Your task to perform on an android device: What's the weather today? Image 0: 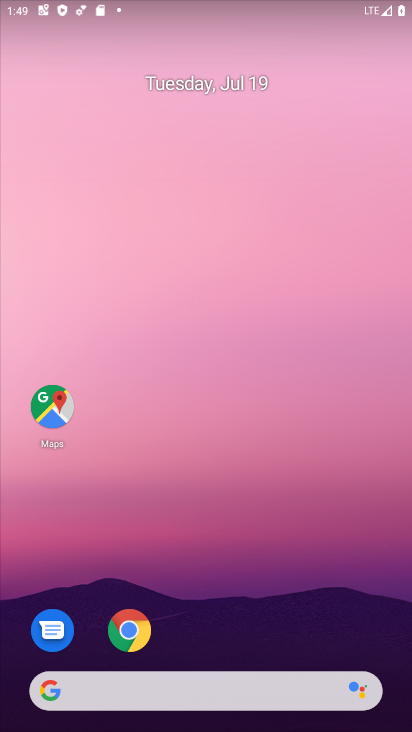
Step 0: drag from (29, 274) to (393, 294)
Your task to perform on an android device: What's the weather today? Image 1: 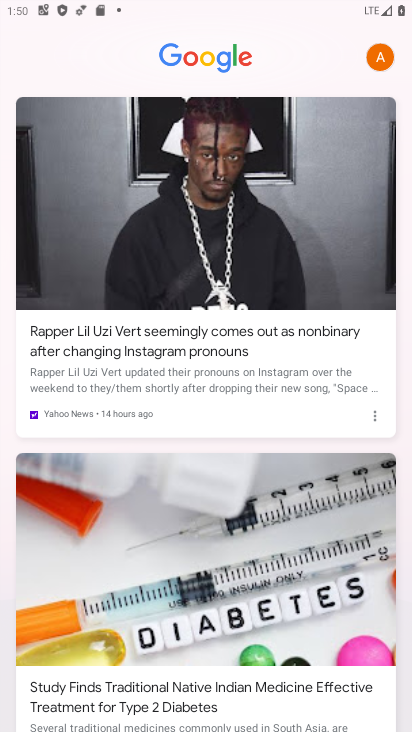
Step 1: press back button
Your task to perform on an android device: What's the weather today? Image 2: 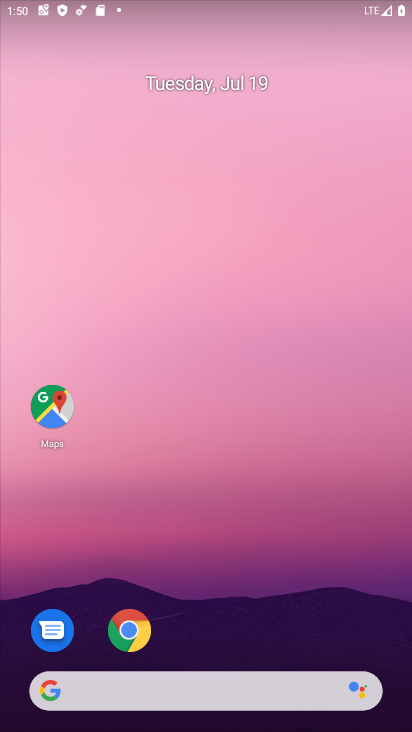
Step 2: click (211, 686)
Your task to perform on an android device: What's the weather today? Image 3: 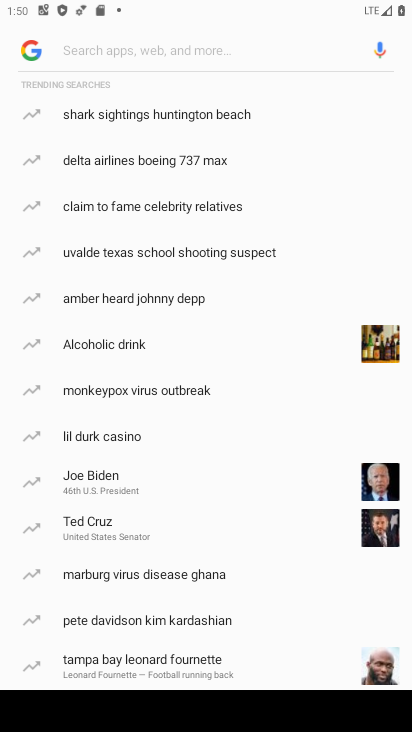
Step 3: type "weather"
Your task to perform on an android device: What's the weather today? Image 4: 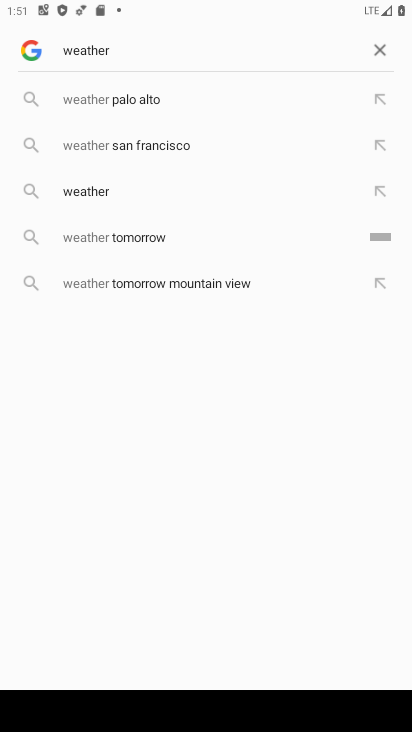
Step 4: click (105, 186)
Your task to perform on an android device: What's the weather today? Image 5: 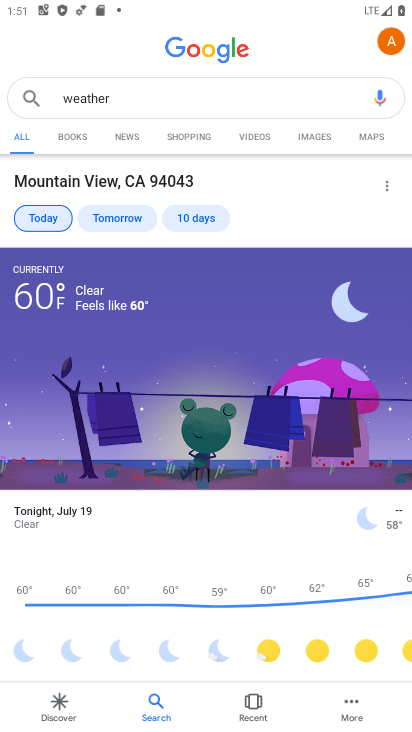
Step 5: task complete